Your task to perform on an android device: toggle translation in the chrome app Image 0: 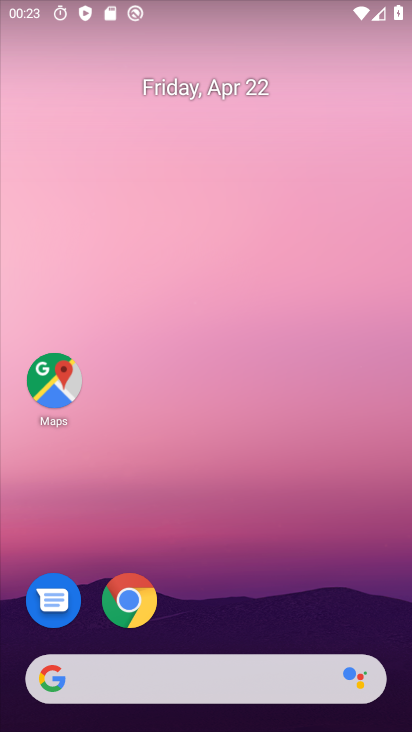
Step 0: click (129, 612)
Your task to perform on an android device: toggle translation in the chrome app Image 1: 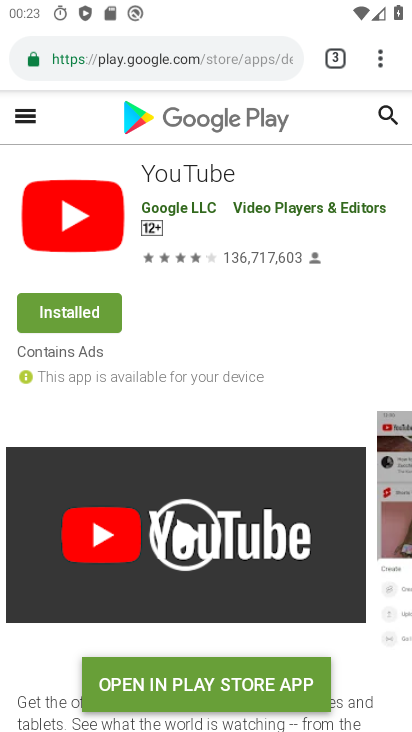
Step 1: click (382, 56)
Your task to perform on an android device: toggle translation in the chrome app Image 2: 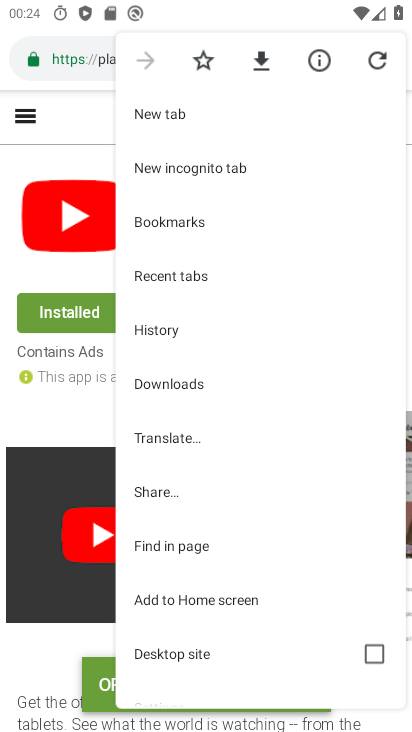
Step 2: drag from (198, 645) to (230, 252)
Your task to perform on an android device: toggle translation in the chrome app Image 3: 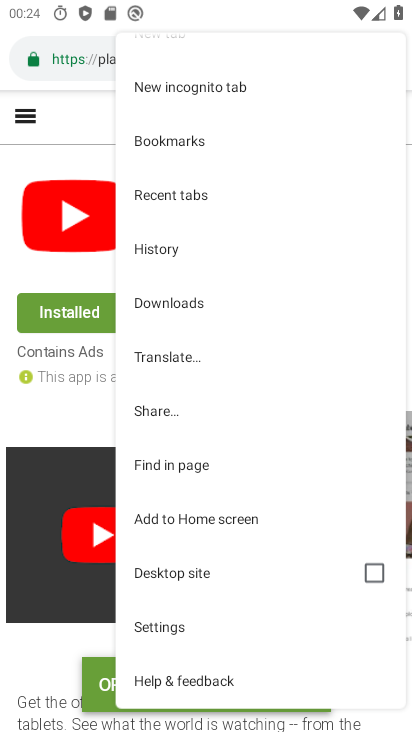
Step 3: click (213, 624)
Your task to perform on an android device: toggle translation in the chrome app Image 4: 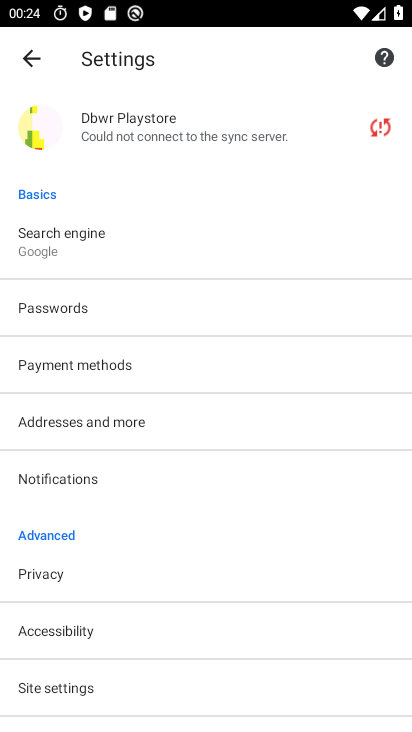
Step 4: drag from (192, 544) to (228, 266)
Your task to perform on an android device: toggle translation in the chrome app Image 5: 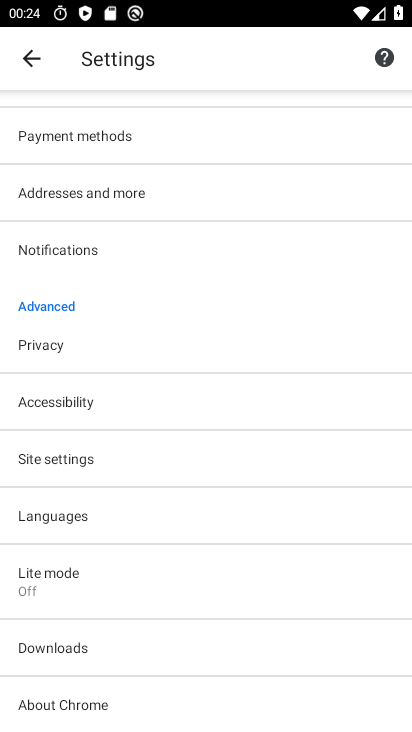
Step 5: click (106, 510)
Your task to perform on an android device: toggle translation in the chrome app Image 6: 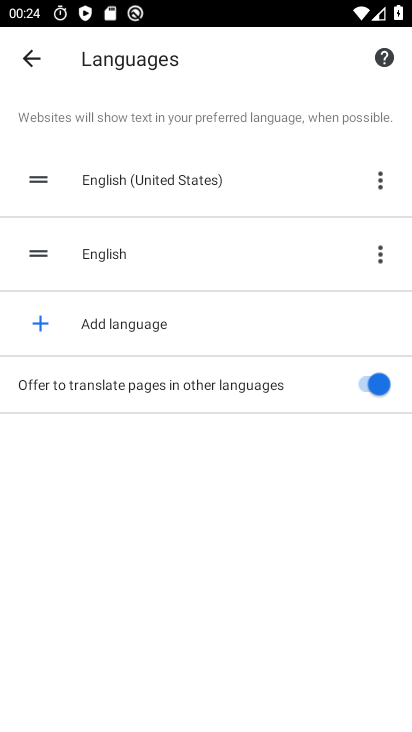
Step 6: click (366, 379)
Your task to perform on an android device: toggle translation in the chrome app Image 7: 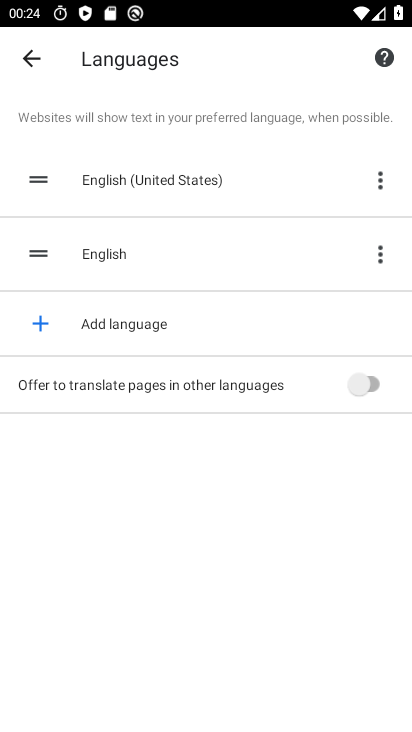
Step 7: task complete